Your task to perform on an android device: open a new tab in the chrome app Image 0: 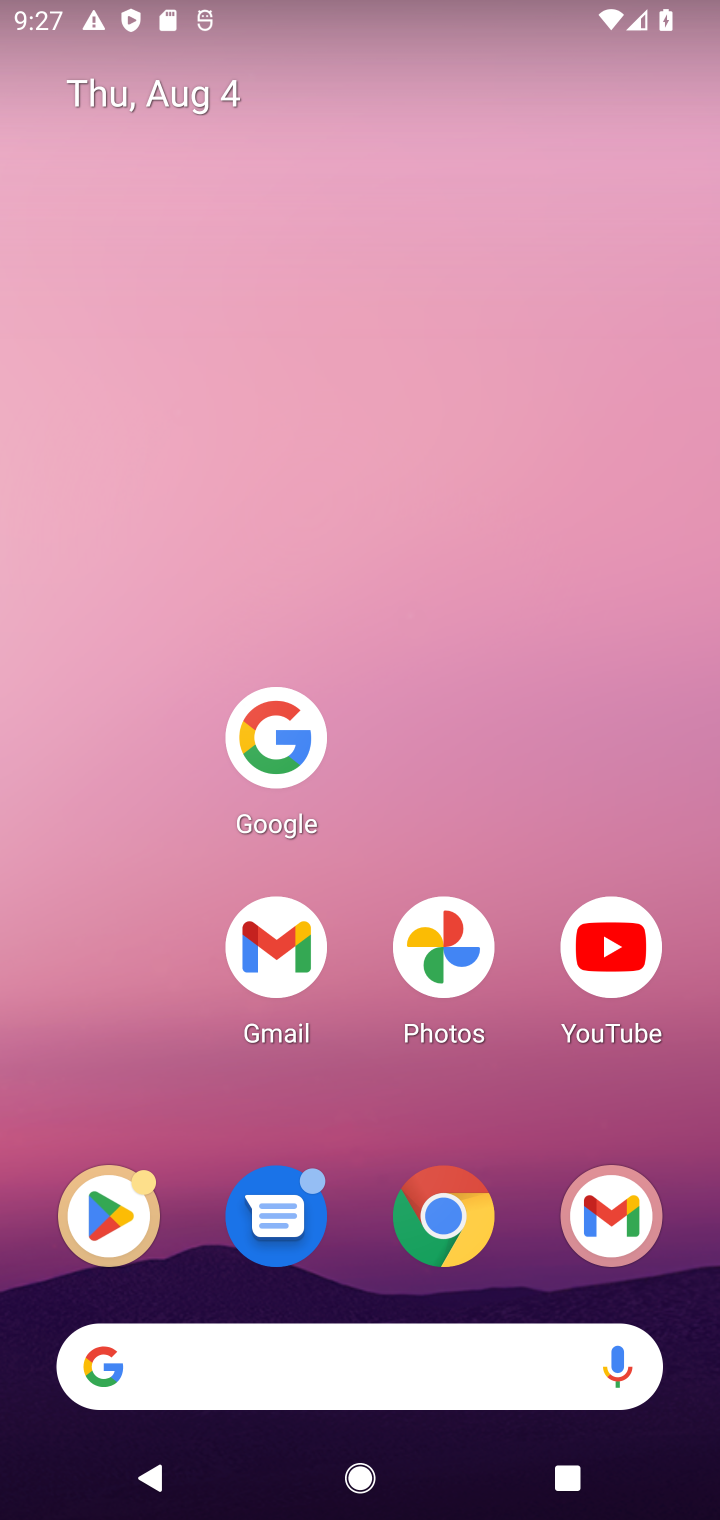
Step 0: click (450, 1218)
Your task to perform on an android device: open a new tab in the chrome app Image 1: 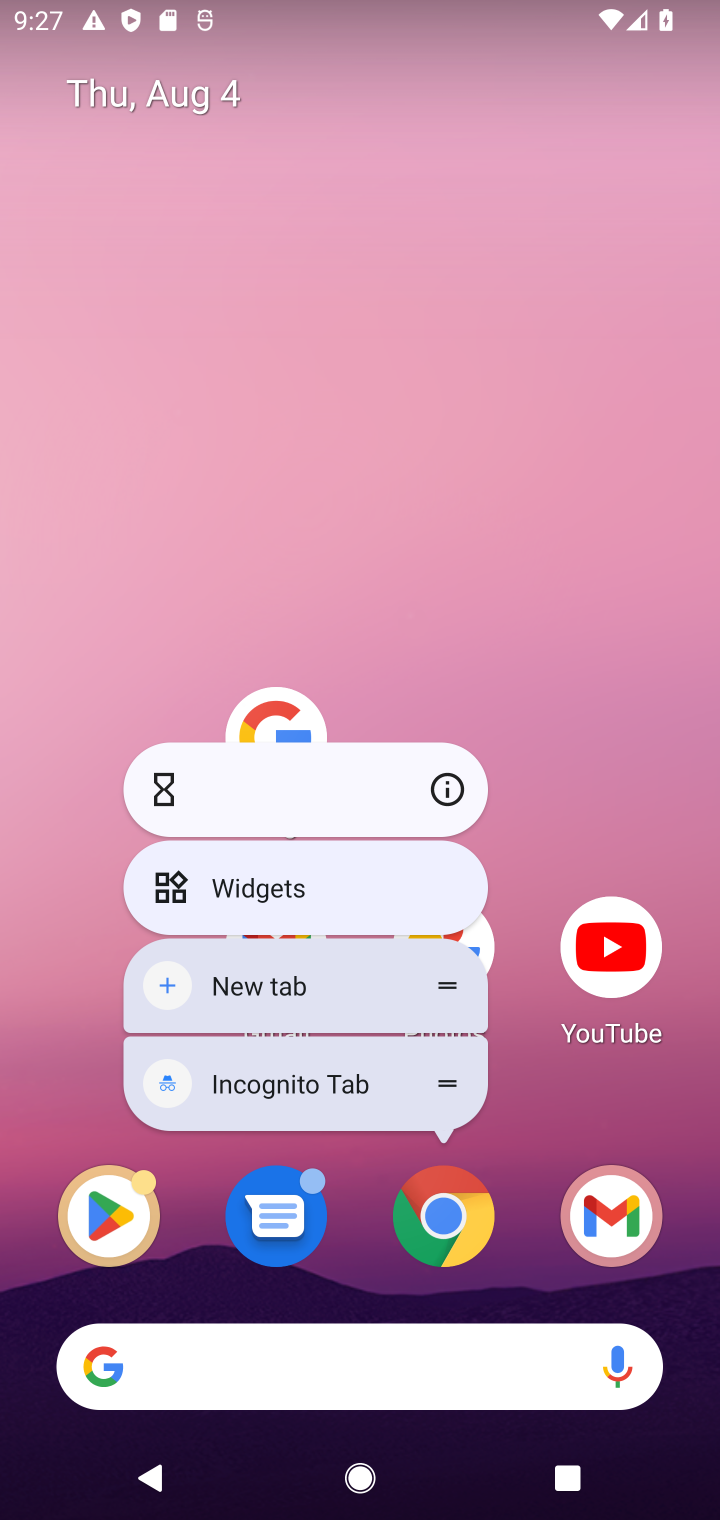
Step 1: click (450, 1218)
Your task to perform on an android device: open a new tab in the chrome app Image 2: 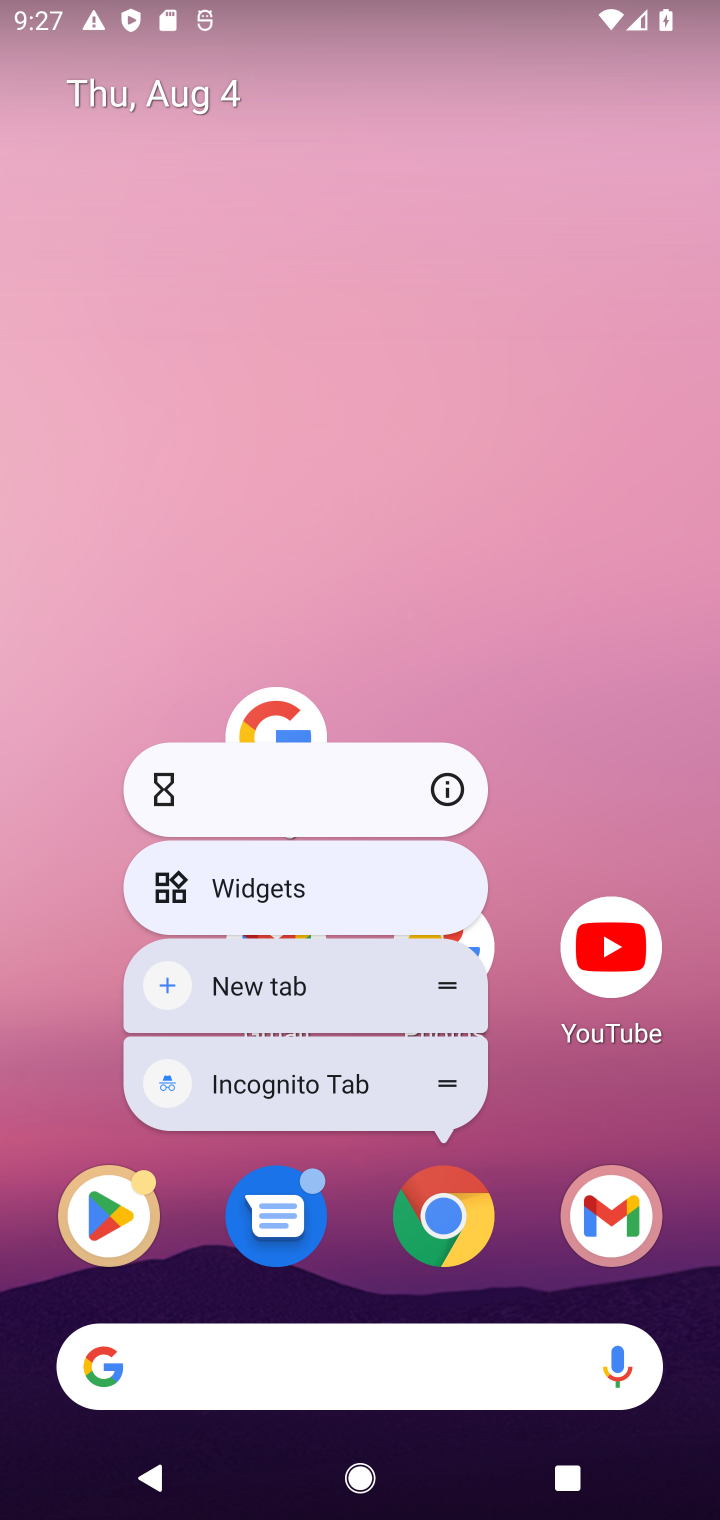
Step 2: click (450, 1218)
Your task to perform on an android device: open a new tab in the chrome app Image 3: 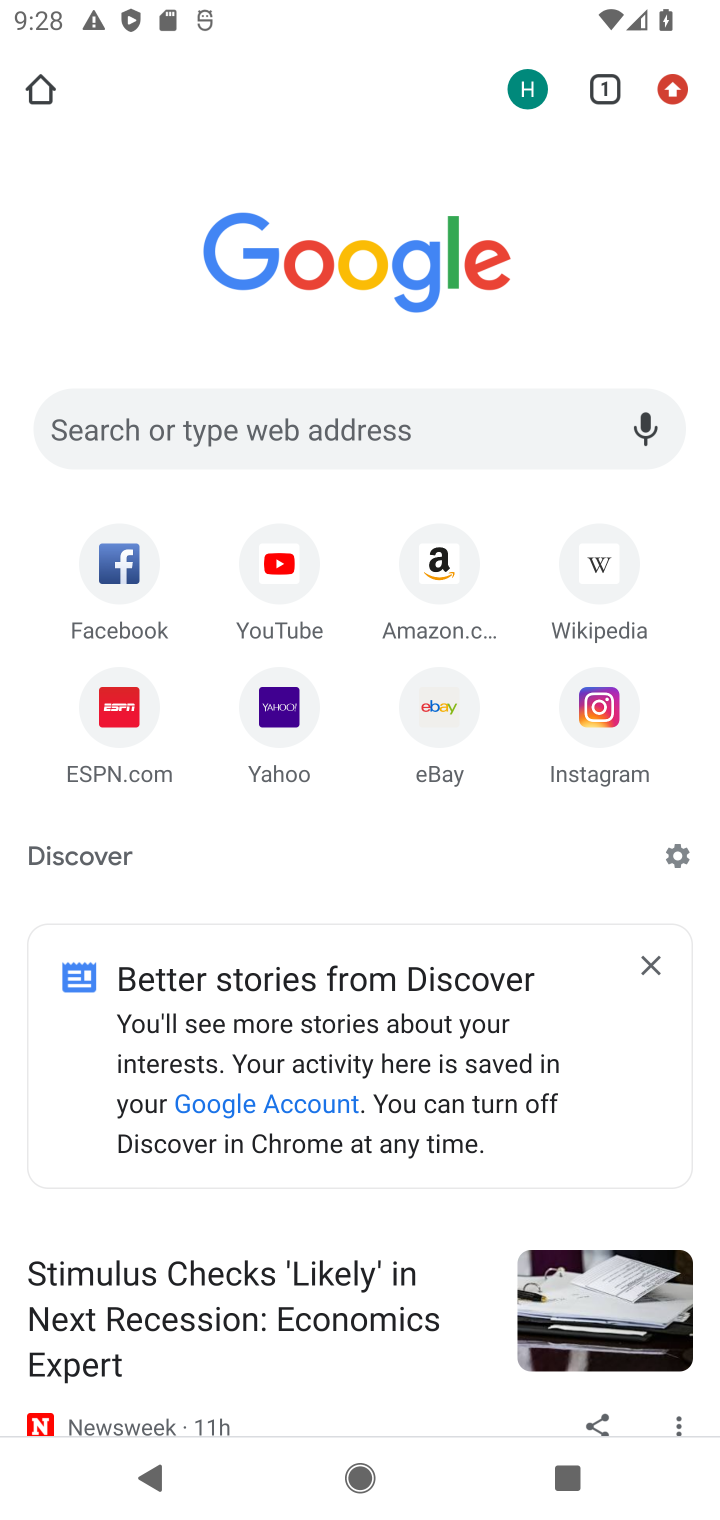
Step 3: click (686, 95)
Your task to perform on an android device: open a new tab in the chrome app Image 4: 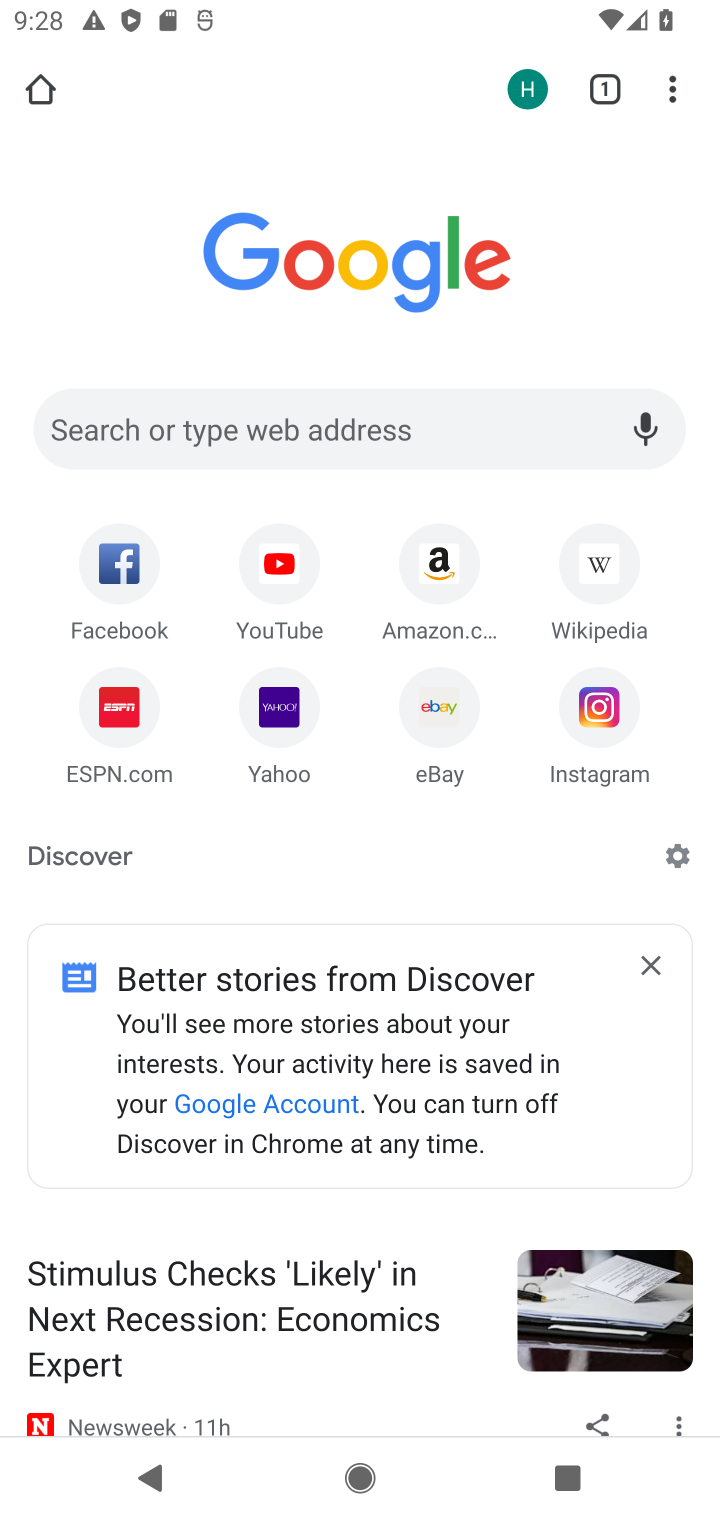
Step 4: click (613, 91)
Your task to perform on an android device: open a new tab in the chrome app Image 5: 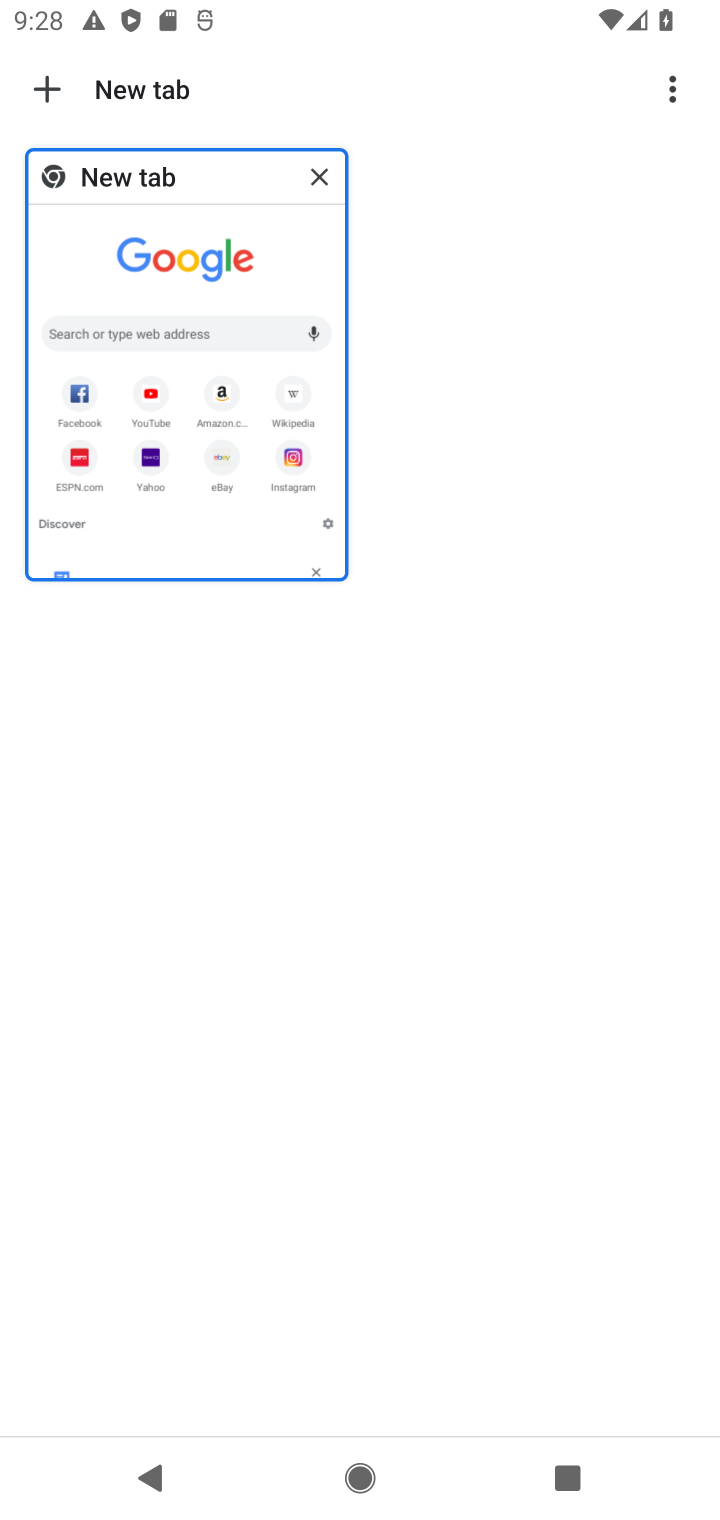
Step 5: click (39, 91)
Your task to perform on an android device: open a new tab in the chrome app Image 6: 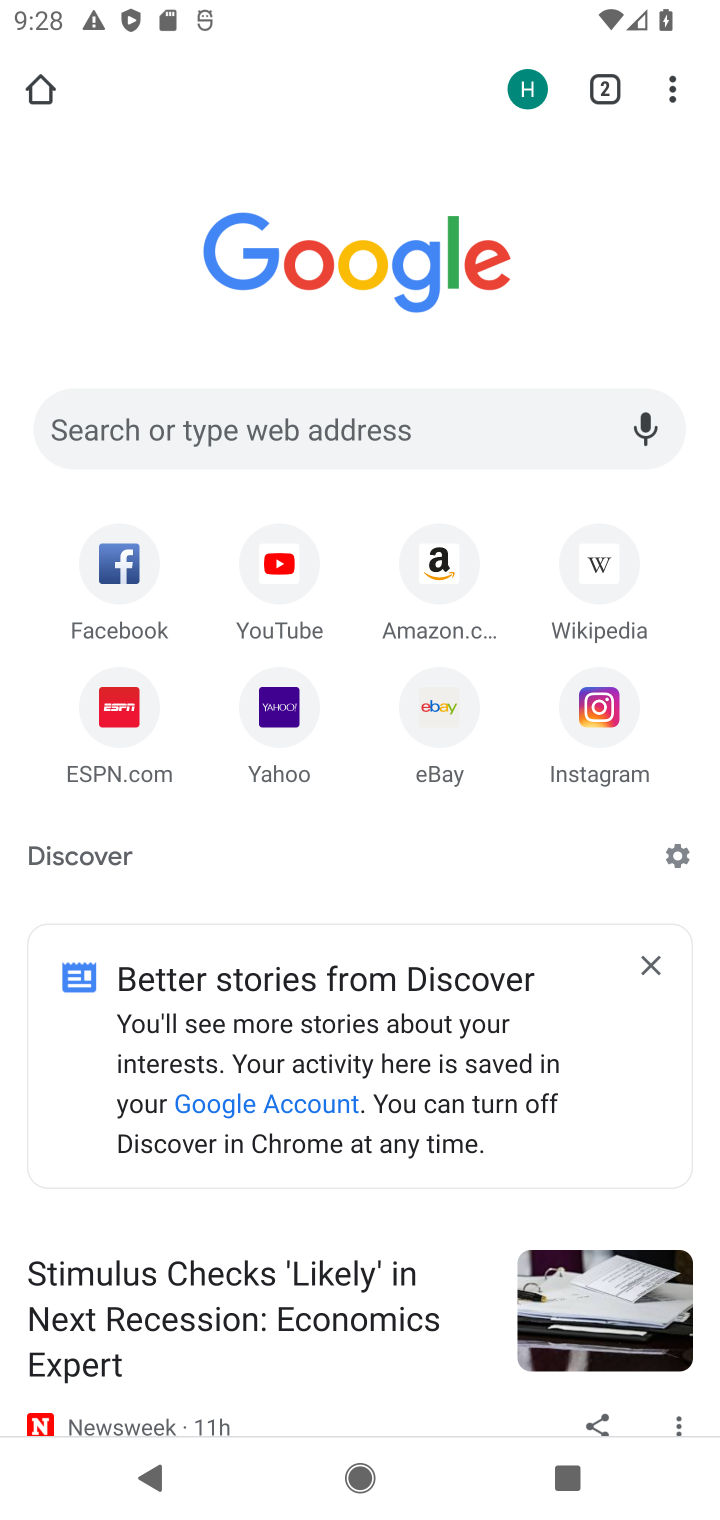
Step 6: task complete